Your task to perform on an android device: turn off sleep mode Image 0: 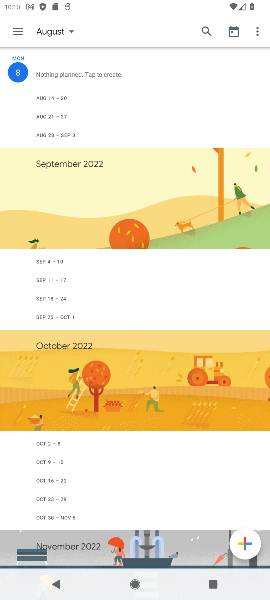
Step 0: press home button
Your task to perform on an android device: turn off sleep mode Image 1: 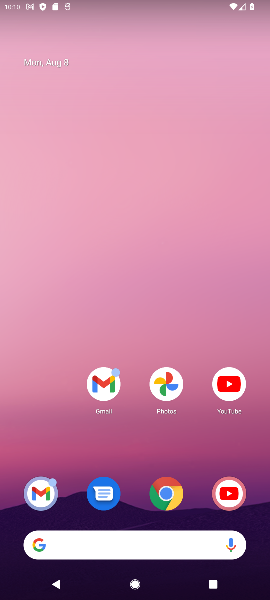
Step 1: drag from (156, 566) to (187, 323)
Your task to perform on an android device: turn off sleep mode Image 2: 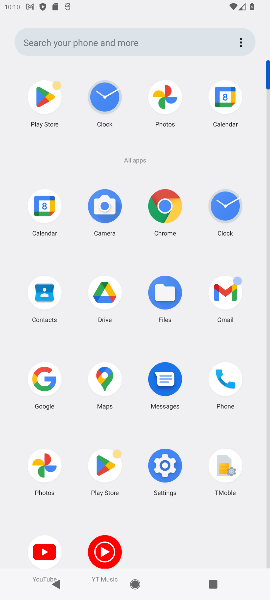
Step 2: click (163, 478)
Your task to perform on an android device: turn off sleep mode Image 3: 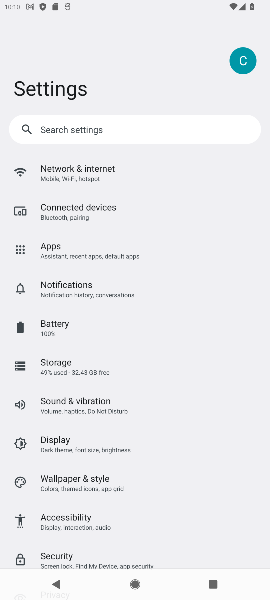
Step 3: click (69, 457)
Your task to perform on an android device: turn off sleep mode Image 4: 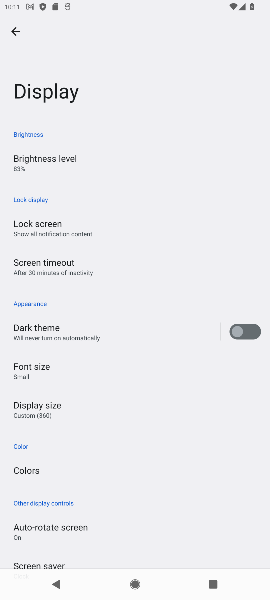
Step 4: task complete